Your task to perform on an android device: Open network settings Image 0: 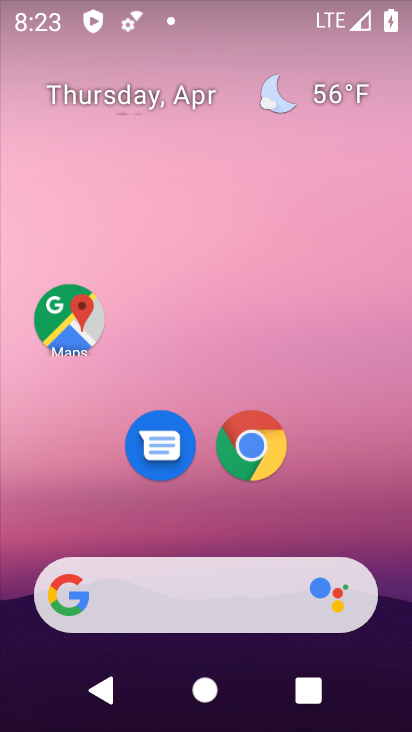
Step 0: drag from (379, 559) to (291, 5)
Your task to perform on an android device: Open network settings Image 1: 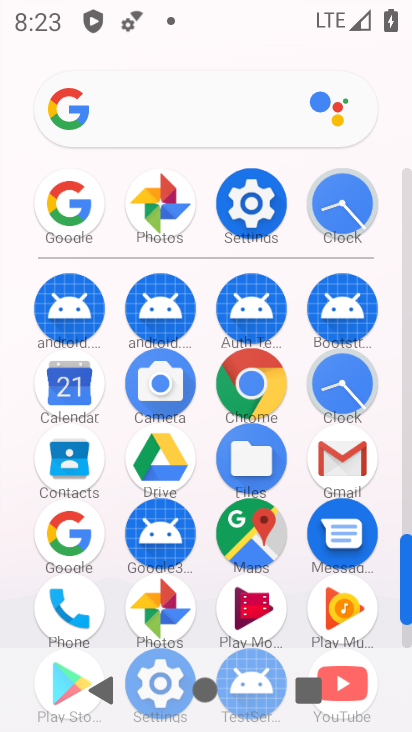
Step 1: click (252, 200)
Your task to perform on an android device: Open network settings Image 2: 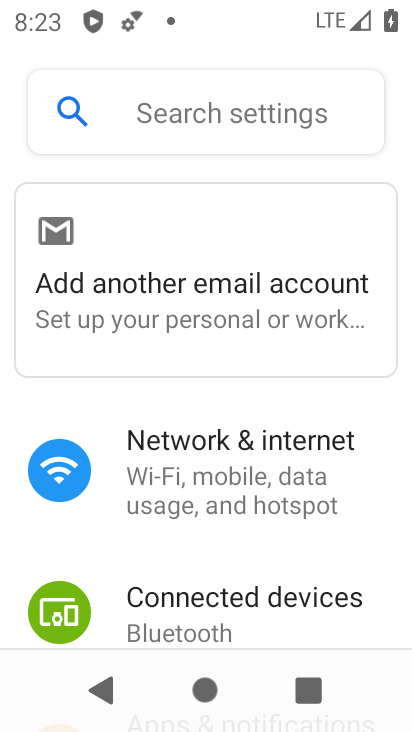
Step 2: click (203, 463)
Your task to perform on an android device: Open network settings Image 3: 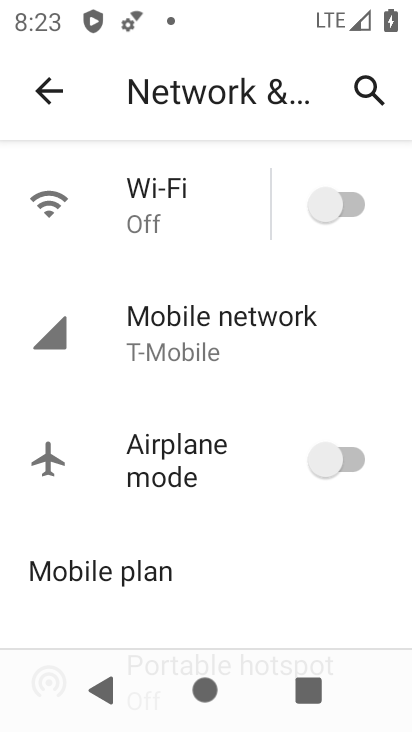
Step 3: drag from (237, 537) to (221, 363)
Your task to perform on an android device: Open network settings Image 4: 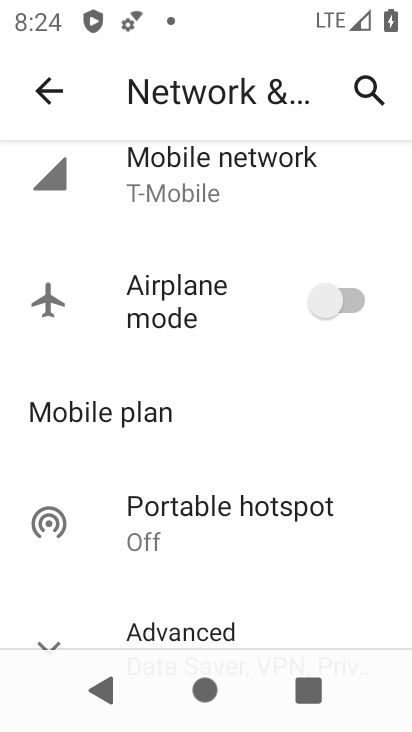
Step 4: click (171, 176)
Your task to perform on an android device: Open network settings Image 5: 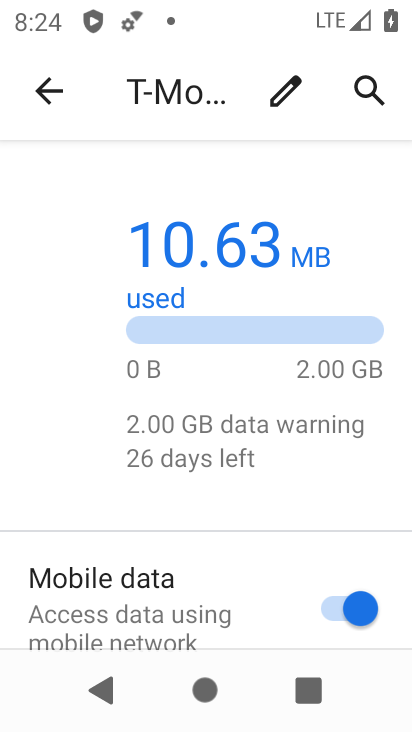
Step 5: drag from (211, 526) to (216, 73)
Your task to perform on an android device: Open network settings Image 6: 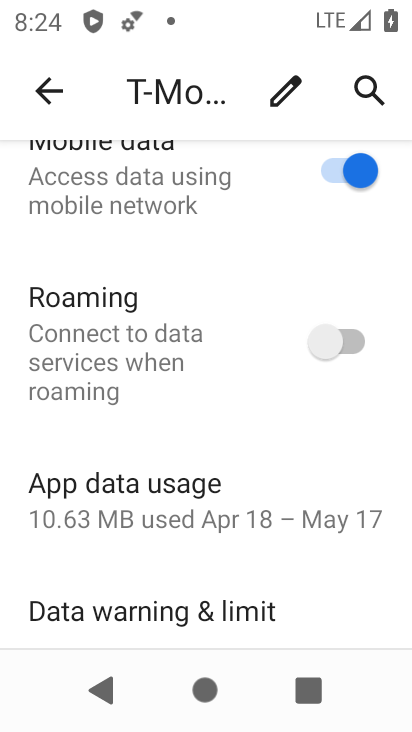
Step 6: drag from (147, 373) to (168, 129)
Your task to perform on an android device: Open network settings Image 7: 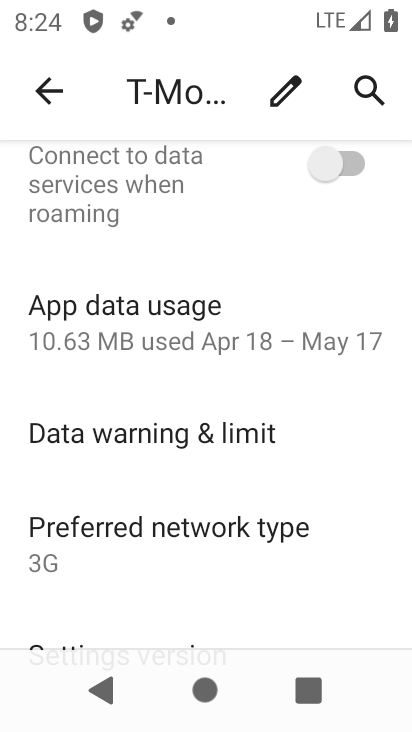
Step 7: drag from (170, 404) to (183, 90)
Your task to perform on an android device: Open network settings Image 8: 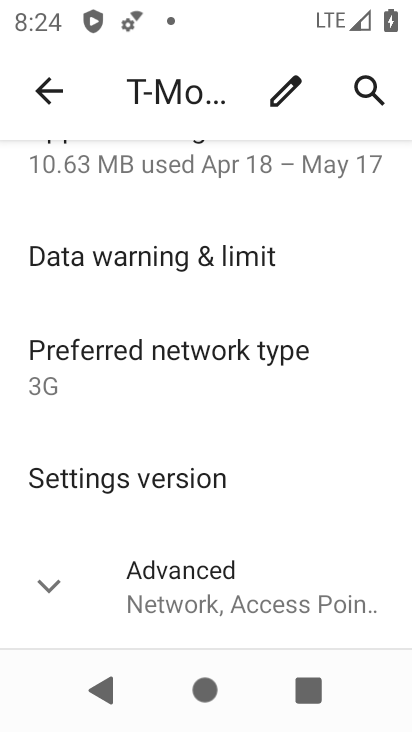
Step 8: click (45, 597)
Your task to perform on an android device: Open network settings Image 9: 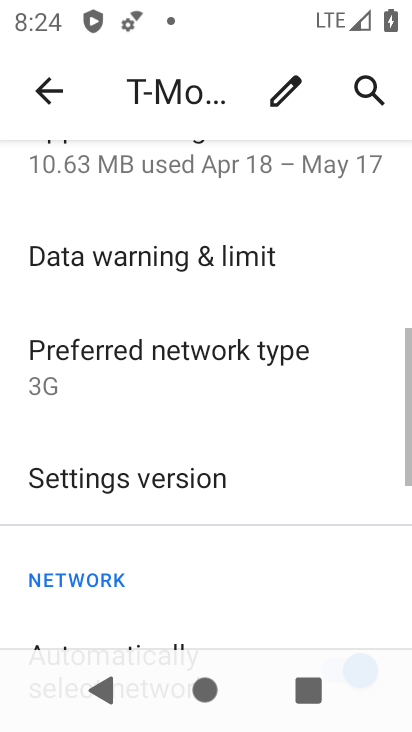
Step 9: task complete